Your task to perform on an android device: Search for sushi restaurants on Maps Image 0: 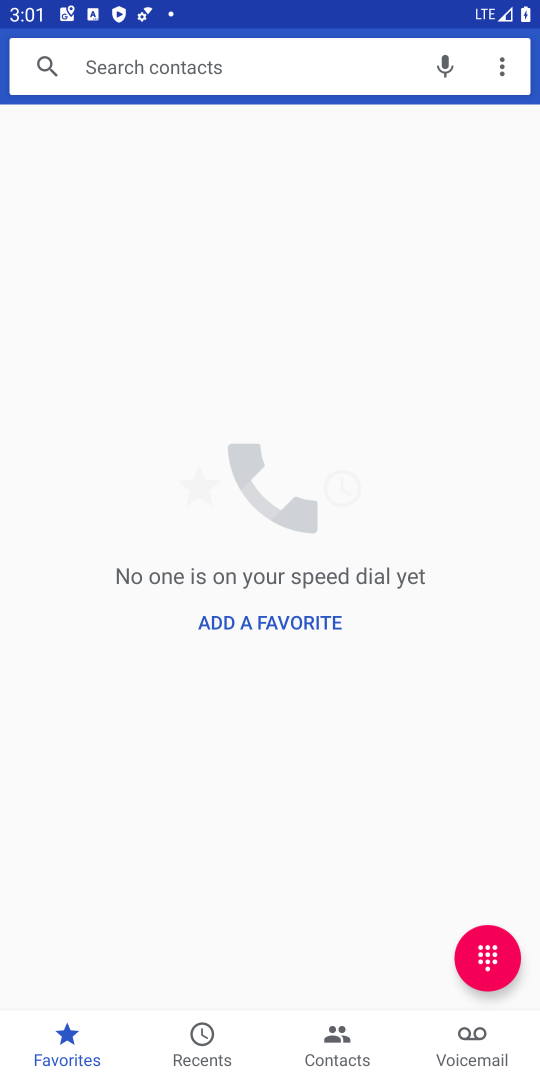
Step 0: press home button
Your task to perform on an android device: Search for sushi restaurants on Maps Image 1: 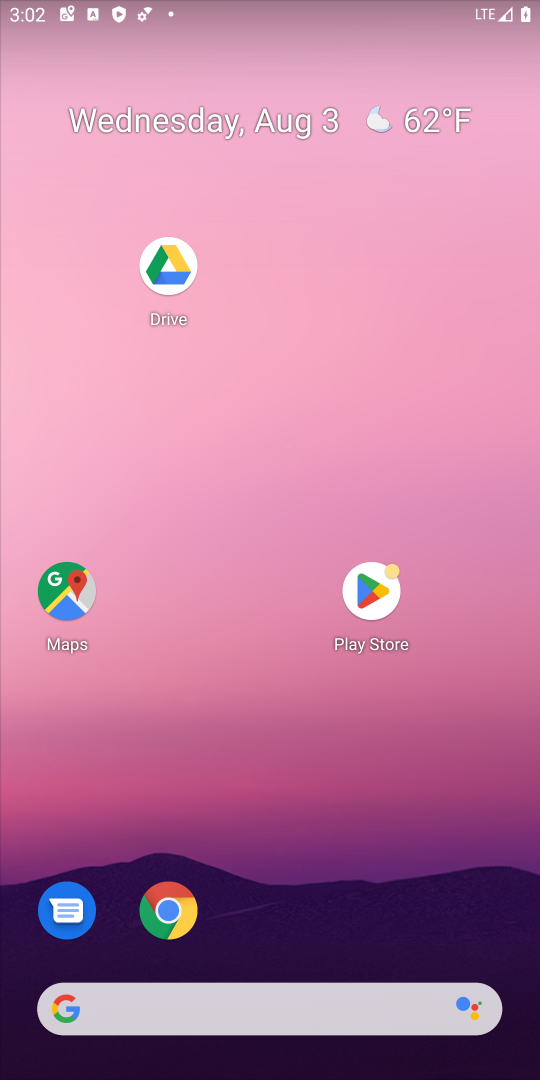
Step 1: drag from (312, 848) to (195, 34)
Your task to perform on an android device: Search for sushi restaurants on Maps Image 2: 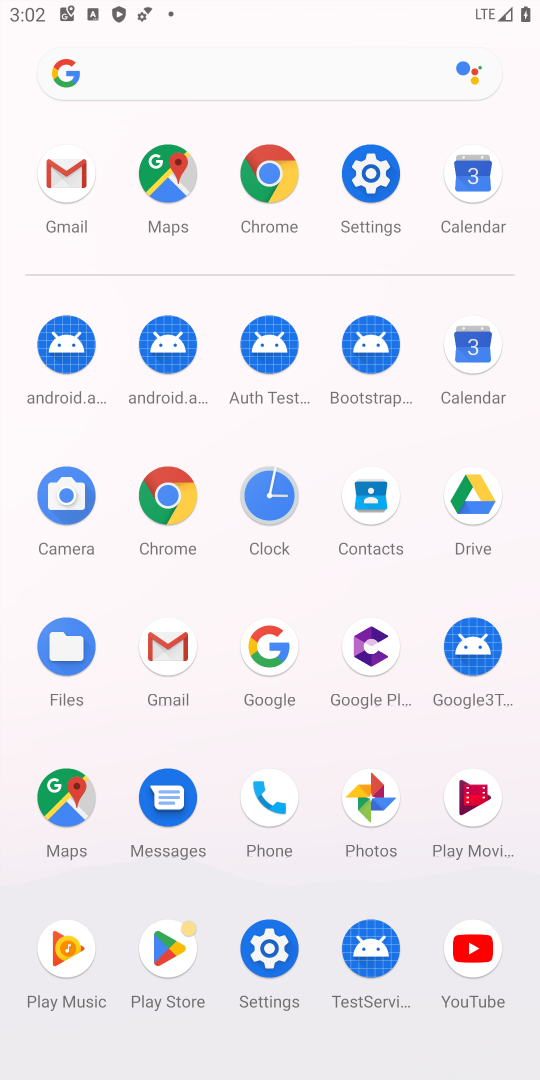
Step 2: click (79, 799)
Your task to perform on an android device: Search for sushi restaurants on Maps Image 3: 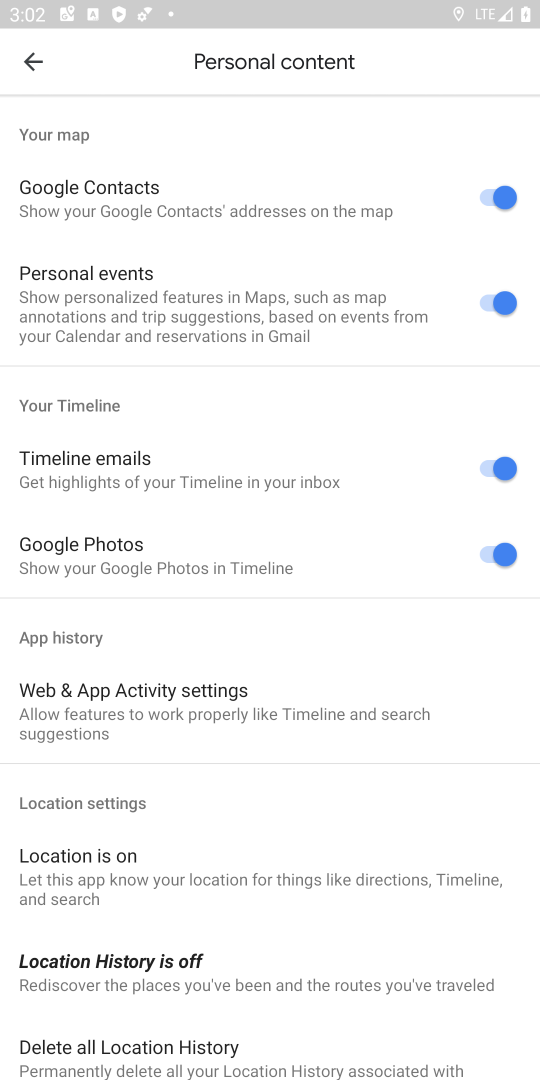
Step 3: press back button
Your task to perform on an android device: Search for sushi restaurants on Maps Image 4: 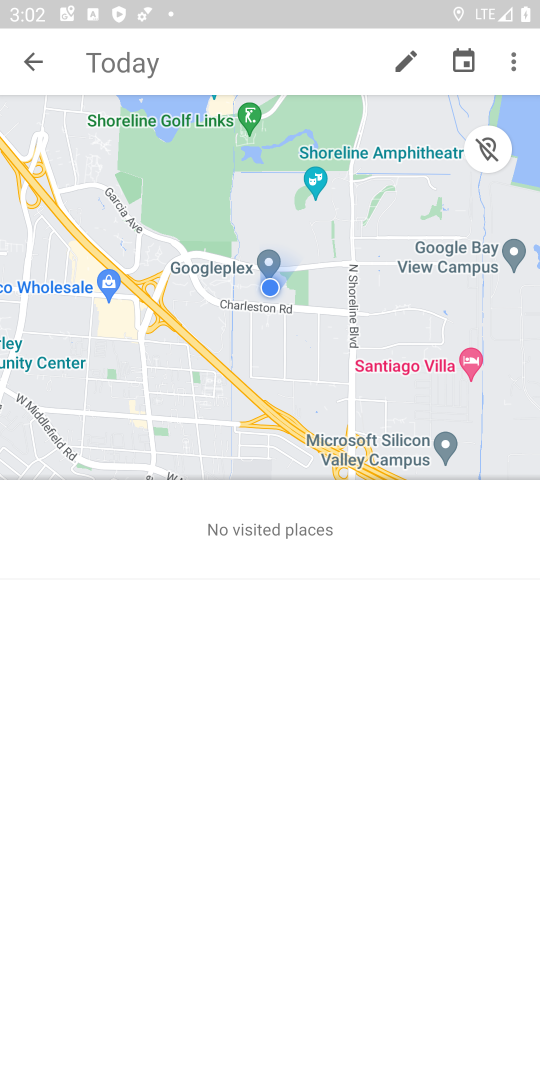
Step 4: press back button
Your task to perform on an android device: Search for sushi restaurants on Maps Image 5: 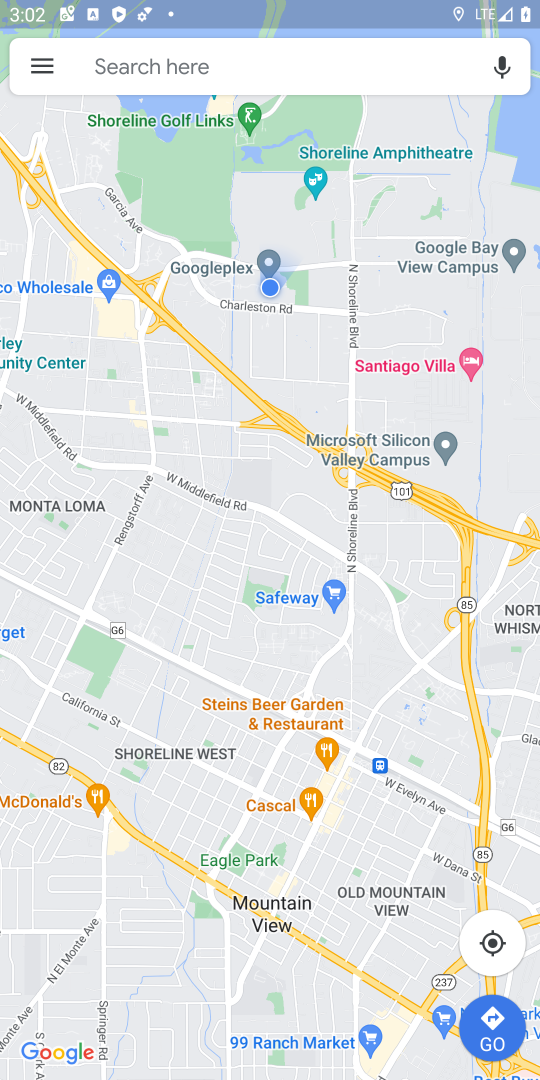
Step 5: click (327, 53)
Your task to perform on an android device: Search for sushi restaurants on Maps Image 6: 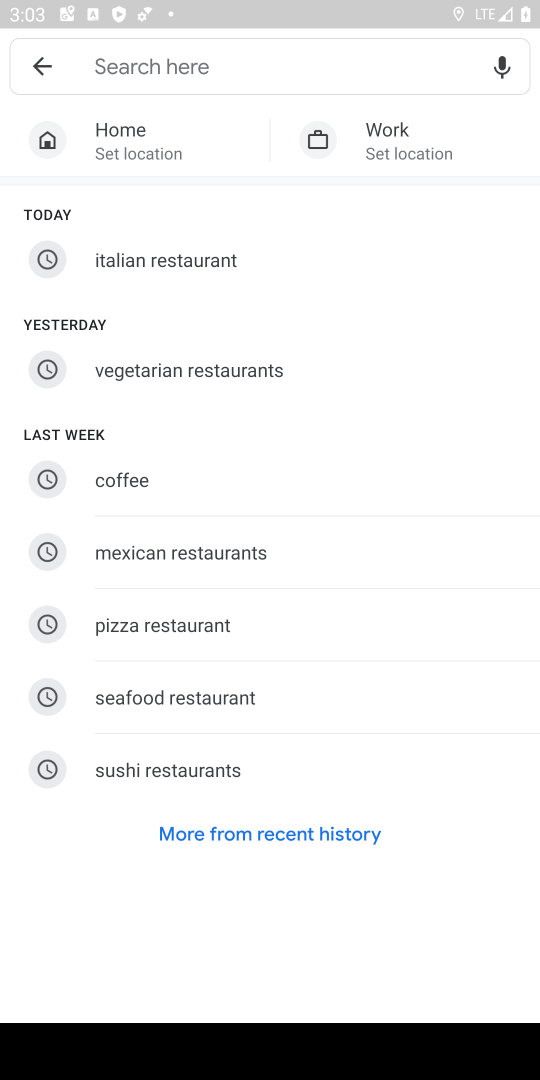
Step 6: click (117, 770)
Your task to perform on an android device: Search for sushi restaurants on Maps Image 7: 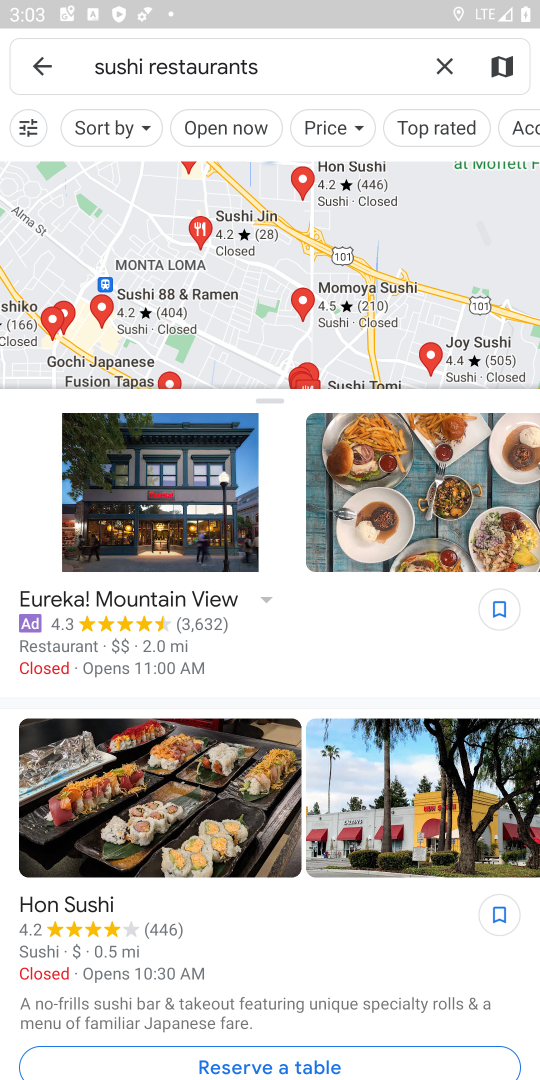
Step 7: task complete